Your task to perform on an android device: delete a single message in the gmail app Image 0: 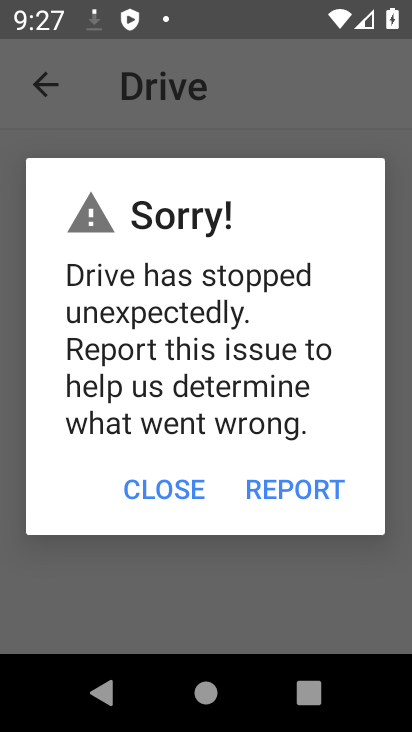
Step 0: press home button
Your task to perform on an android device: delete a single message in the gmail app Image 1: 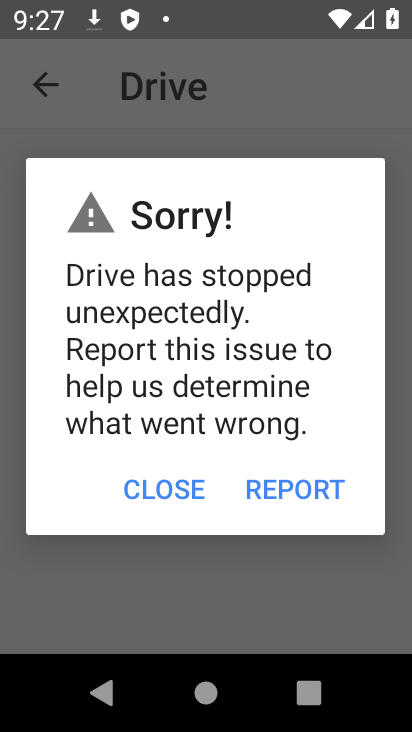
Step 1: press home button
Your task to perform on an android device: delete a single message in the gmail app Image 2: 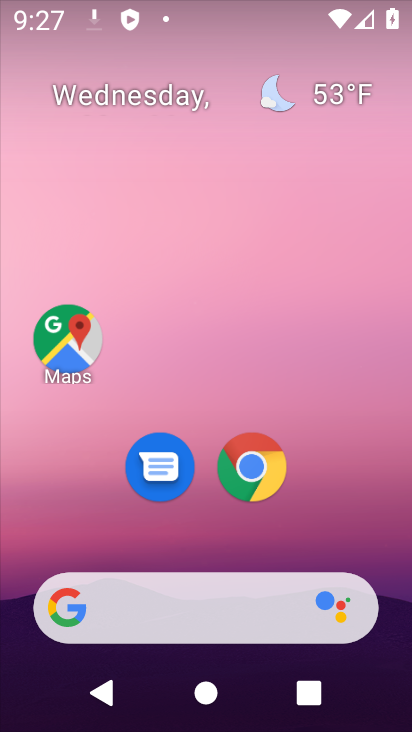
Step 2: drag from (376, 525) to (400, 43)
Your task to perform on an android device: delete a single message in the gmail app Image 3: 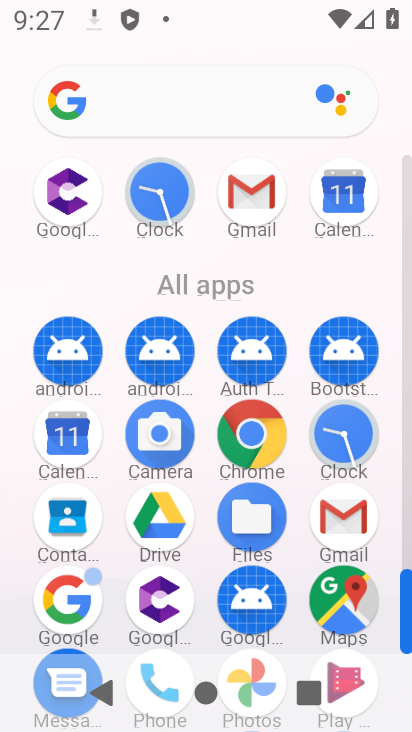
Step 3: click (237, 189)
Your task to perform on an android device: delete a single message in the gmail app Image 4: 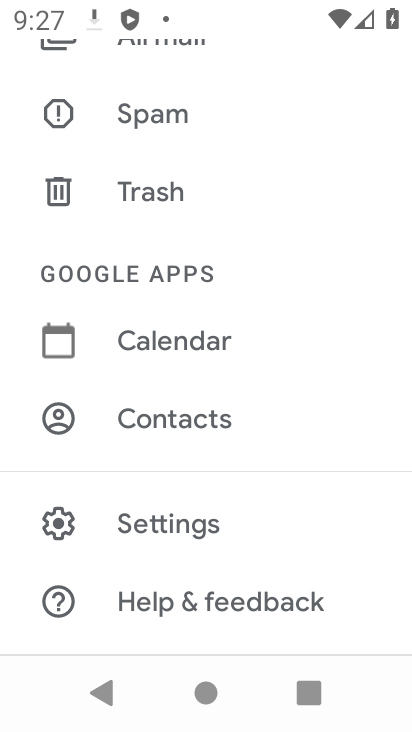
Step 4: task complete